Your task to perform on an android device: Show me popular games on the Play Store Image 0: 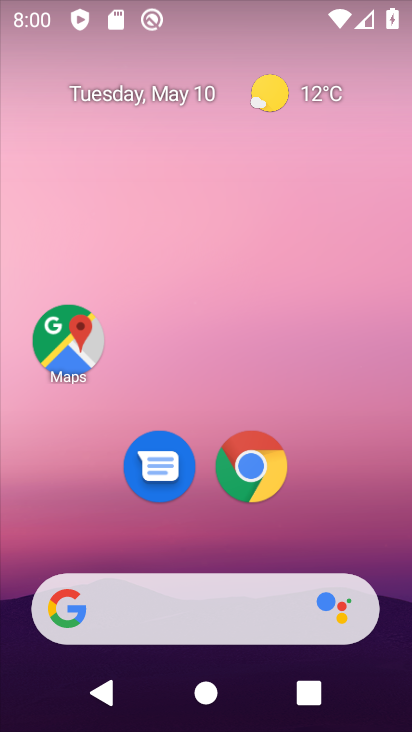
Step 0: drag from (205, 546) to (292, 62)
Your task to perform on an android device: Show me popular games on the Play Store Image 1: 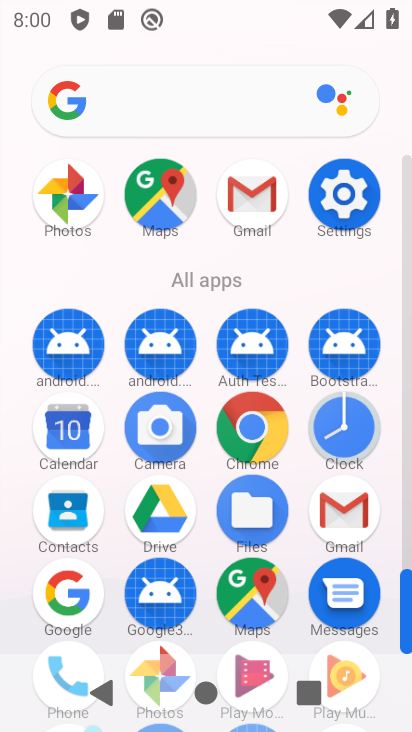
Step 1: drag from (206, 510) to (251, 192)
Your task to perform on an android device: Show me popular games on the Play Store Image 2: 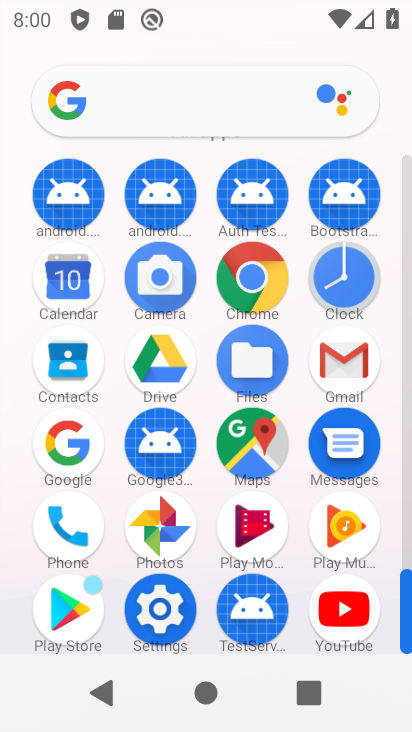
Step 2: click (67, 600)
Your task to perform on an android device: Show me popular games on the Play Store Image 3: 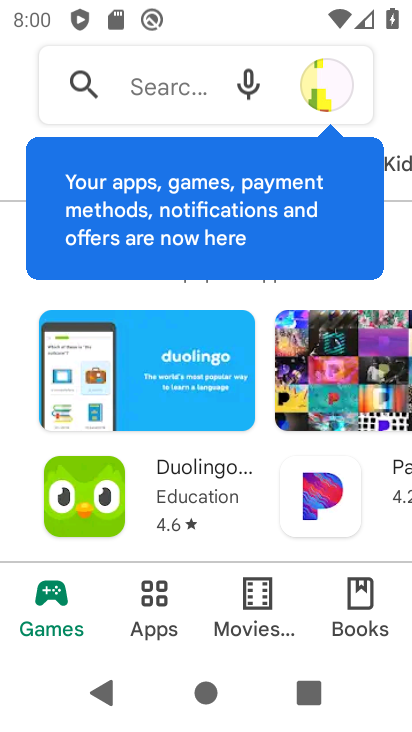
Step 3: drag from (406, 177) to (372, 167)
Your task to perform on an android device: Show me popular games on the Play Store Image 4: 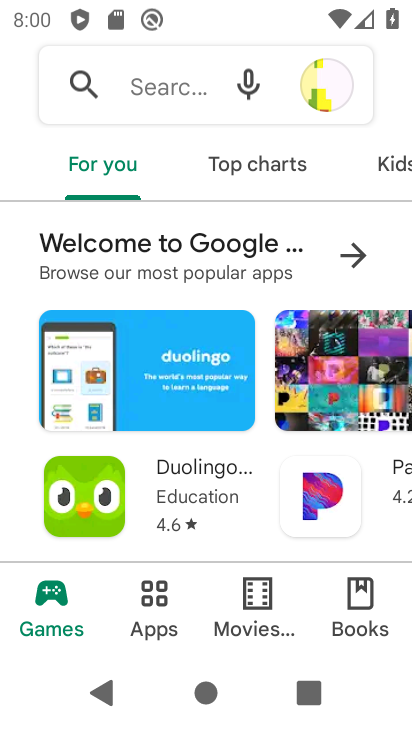
Step 4: click (261, 168)
Your task to perform on an android device: Show me popular games on the Play Store Image 5: 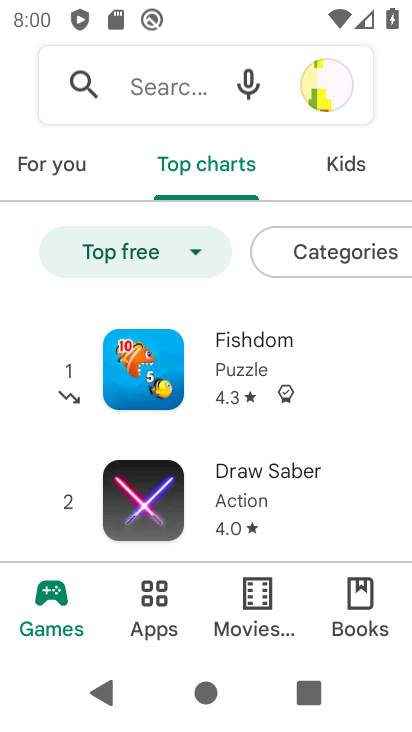
Step 5: task complete